Your task to perform on an android device: View the shopping cart on walmart.com. Add corsair k70 to the cart on walmart.com Image 0: 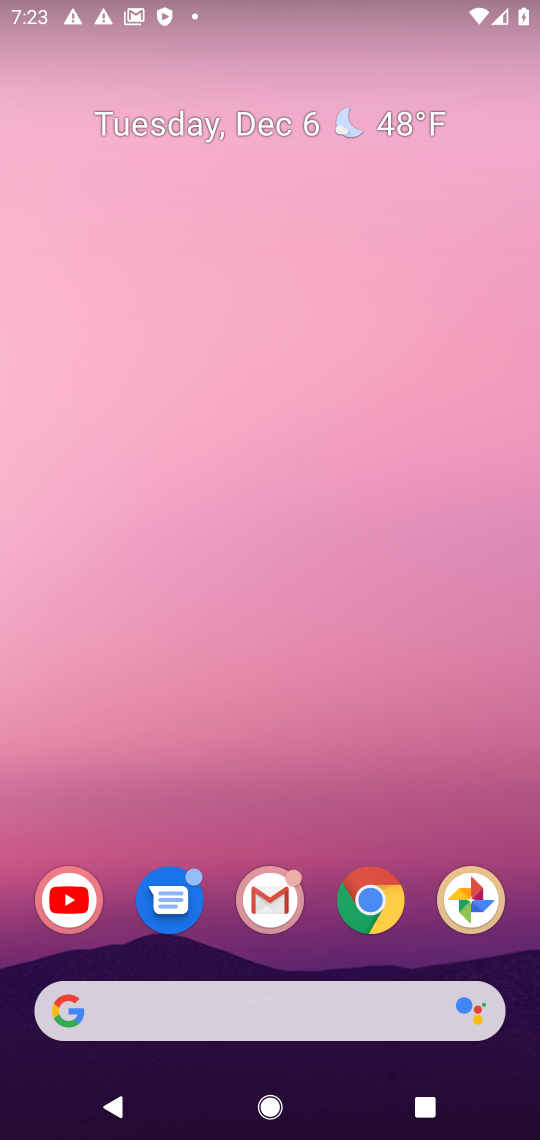
Step 0: drag from (190, 786) to (190, 172)
Your task to perform on an android device: View the shopping cart on walmart.com. Add corsair k70 to the cart on walmart.com Image 1: 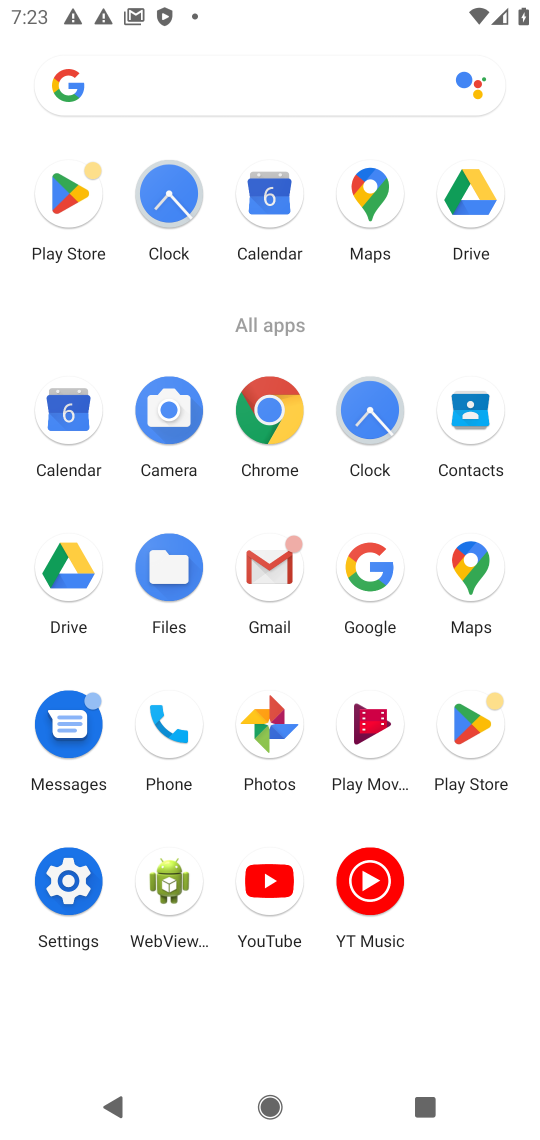
Step 1: click (355, 574)
Your task to perform on an android device: View the shopping cart on walmart.com. Add corsair k70 to the cart on walmart.com Image 2: 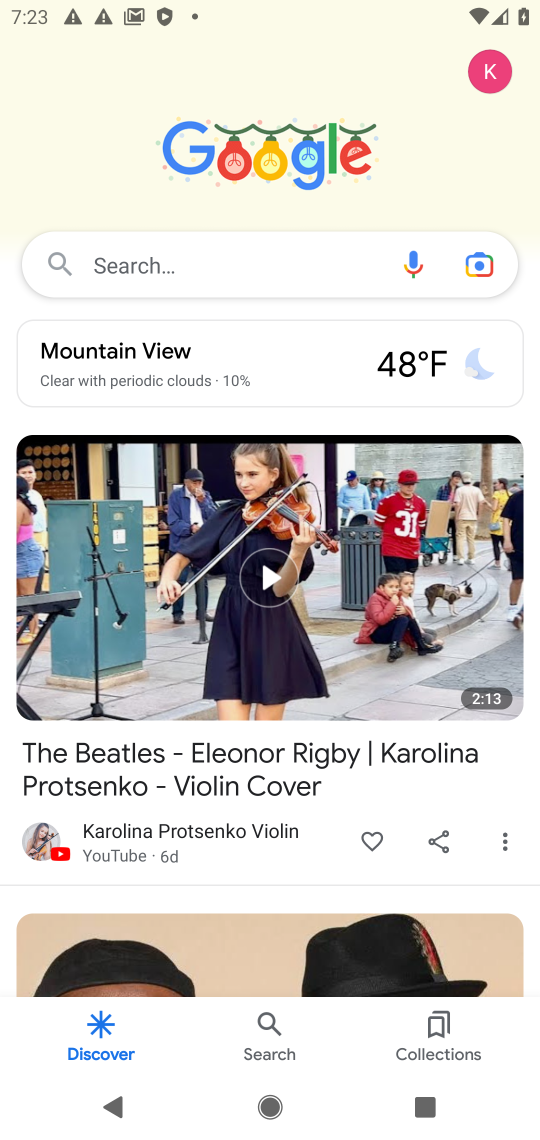
Step 2: click (286, 266)
Your task to perform on an android device: View the shopping cart on walmart.com. Add corsair k70 to the cart on walmart.com Image 3: 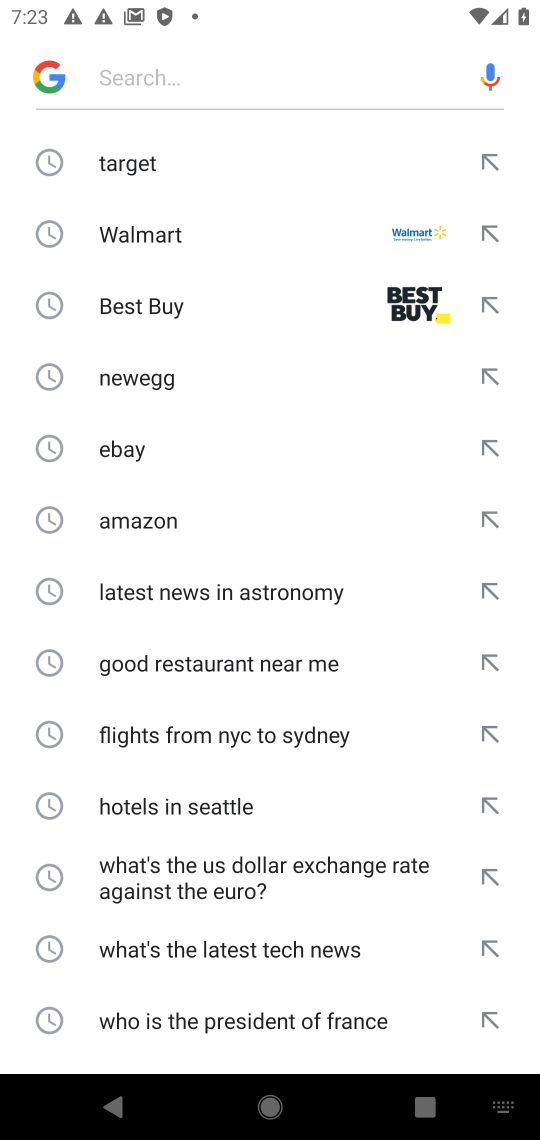
Step 3: click (415, 228)
Your task to perform on an android device: View the shopping cart on walmart.com. Add corsair k70 to the cart on walmart.com Image 4: 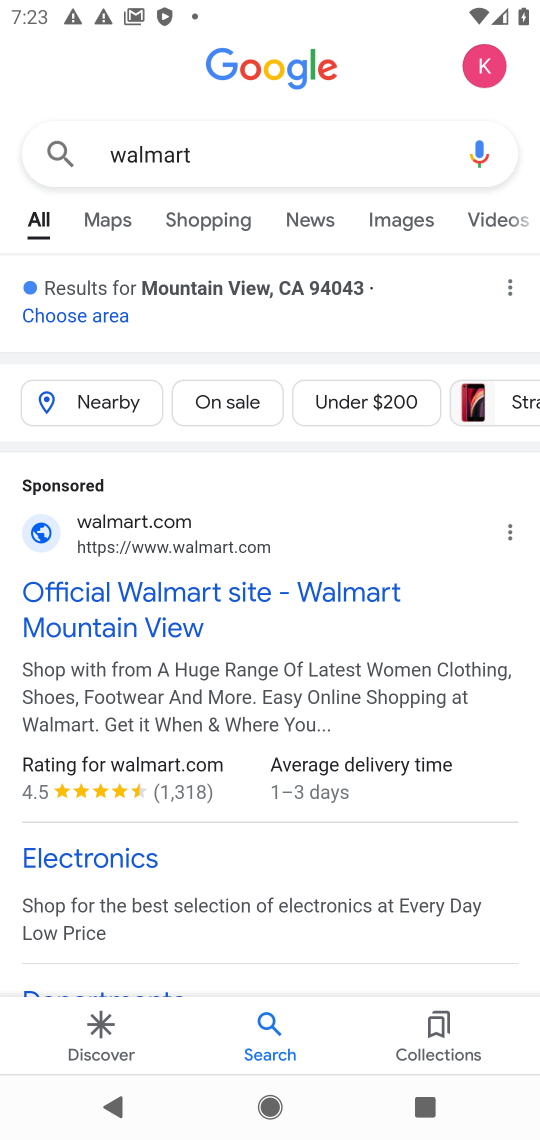
Step 4: click (177, 585)
Your task to perform on an android device: View the shopping cart on walmart.com. Add corsair k70 to the cart on walmart.com Image 5: 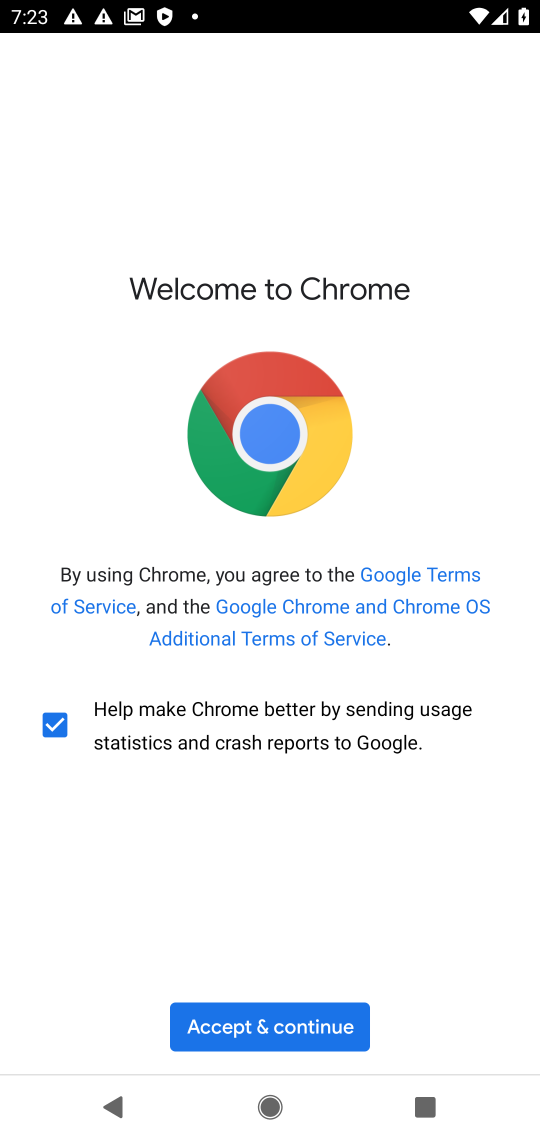
Step 5: click (197, 1013)
Your task to perform on an android device: View the shopping cart on walmart.com. Add corsair k70 to the cart on walmart.com Image 6: 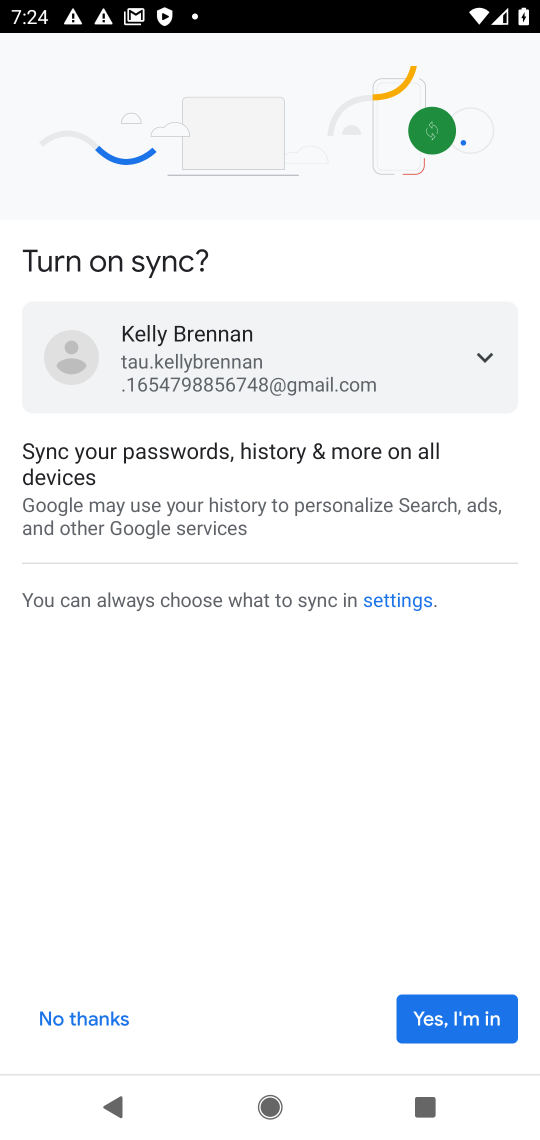
Step 6: click (435, 1007)
Your task to perform on an android device: View the shopping cart on walmart.com. Add corsair k70 to the cart on walmart.com Image 7: 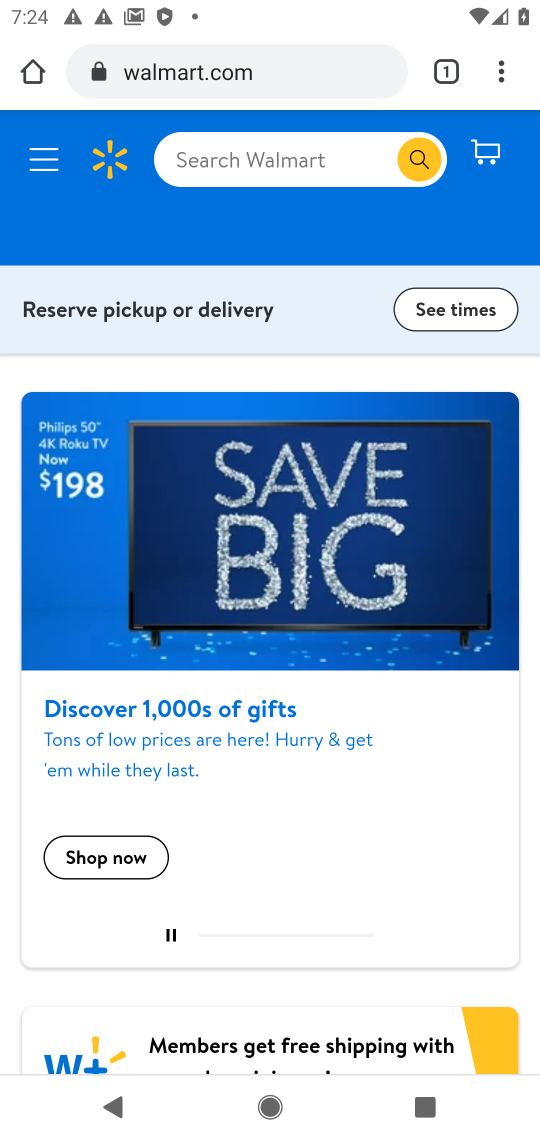
Step 7: click (200, 145)
Your task to perform on an android device: View the shopping cart on walmart.com. Add corsair k70 to the cart on walmart.com Image 8: 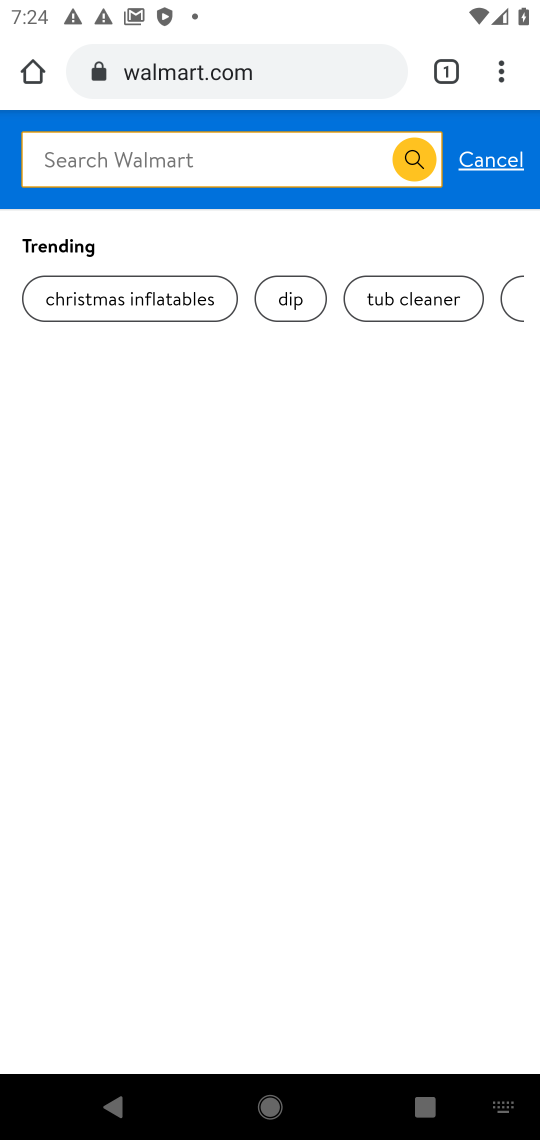
Step 8: type "corsair k70"
Your task to perform on an android device: View the shopping cart on walmart.com. Add corsair k70 to the cart on walmart.com Image 9: 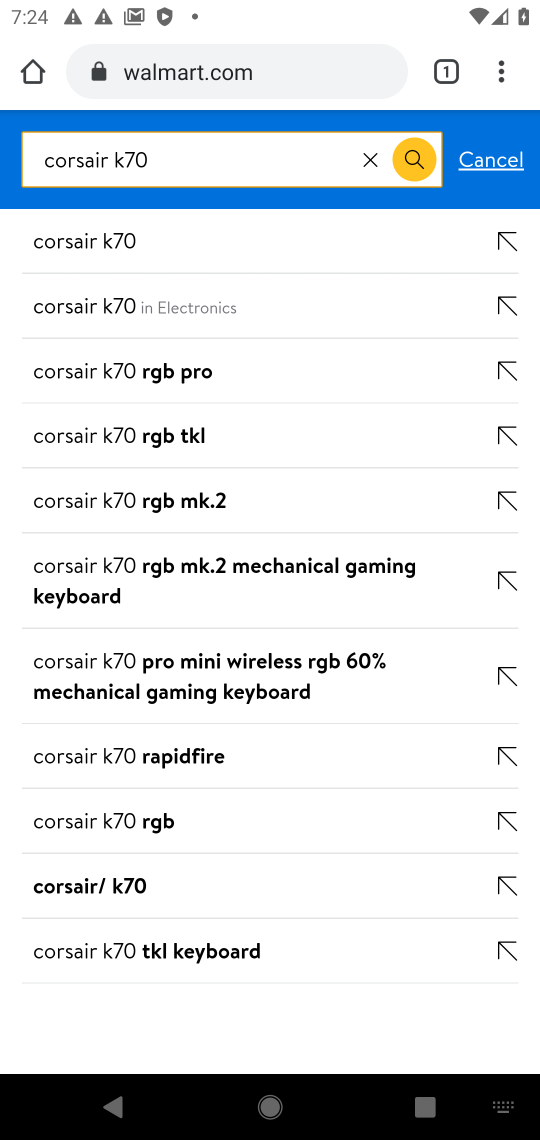
Step 9: click (15, 251)
Your task to perform on an android device: View the shopping cart on walmart.com. Add corsair k70 to the cart on walmart.com Image 10: 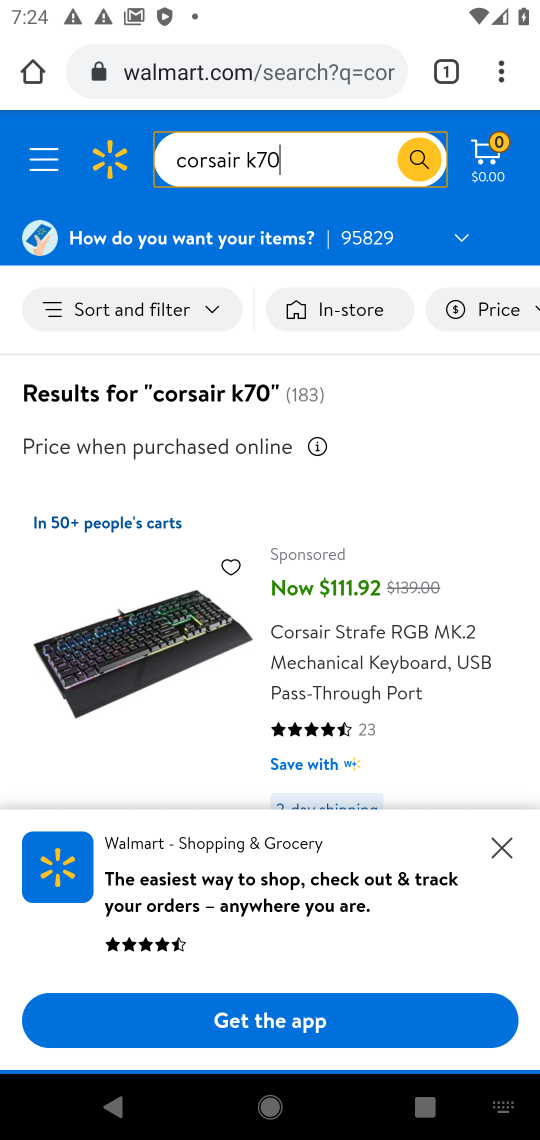
Step 10: drag from (331, 746) to (334, 231)
Your task to perform on an android device: View the shopping cart on walmart.com. Add corsair k70 to the cart on walmart.com Image 11: 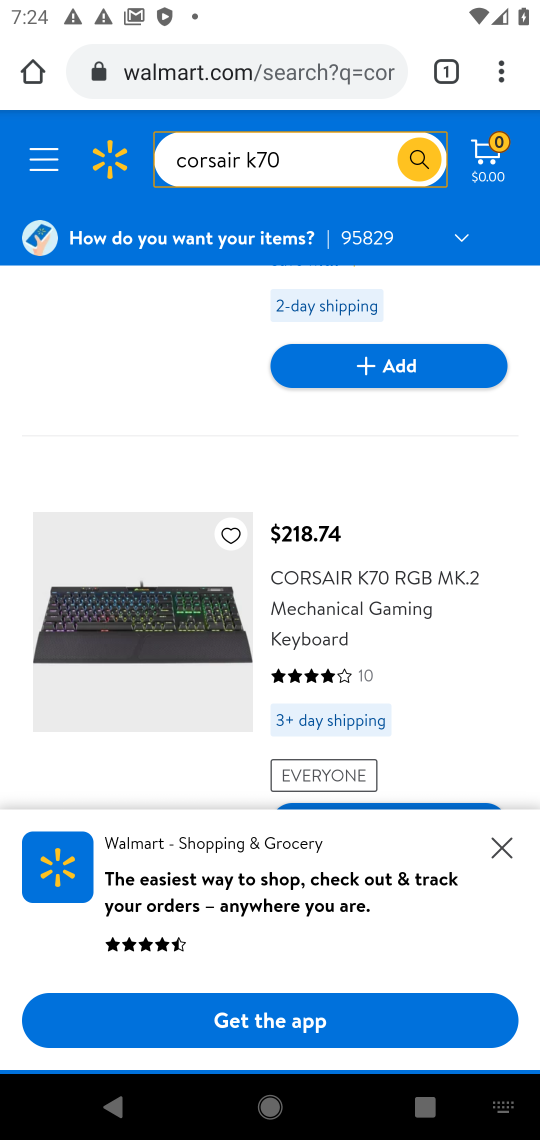
Step 11: click (384, 373)
Your task to perform on an android device: View the shopping cart on walmart.com. Add corsair k70 to the cart on walmart.com Image 12: 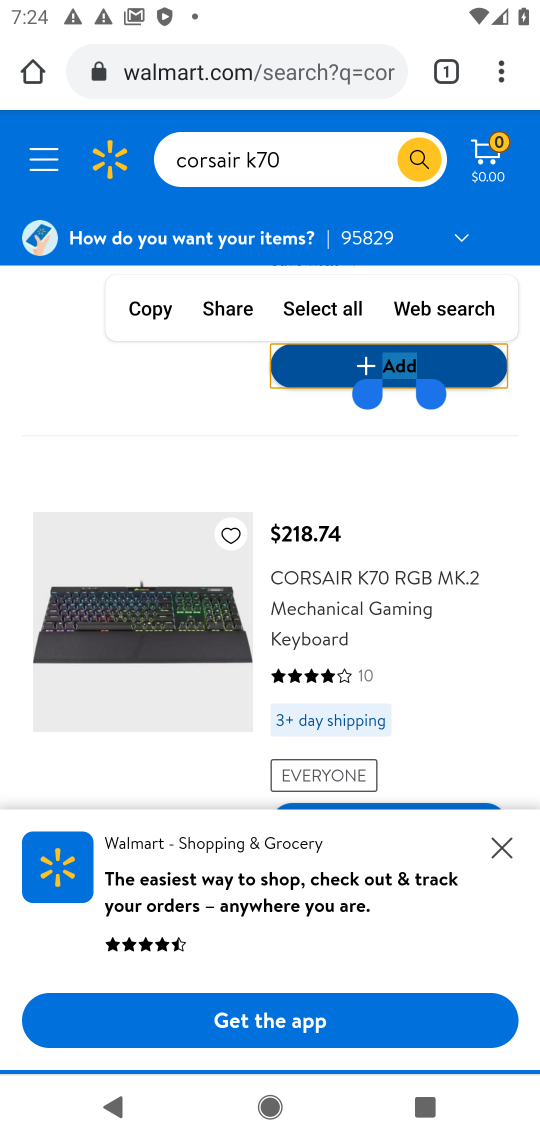
Step 12: click (258, 387)
Your task to perform on an android device: View the shopping cart on walmart.com. Add corsair k70 to the cart on walmart.com Image 13: 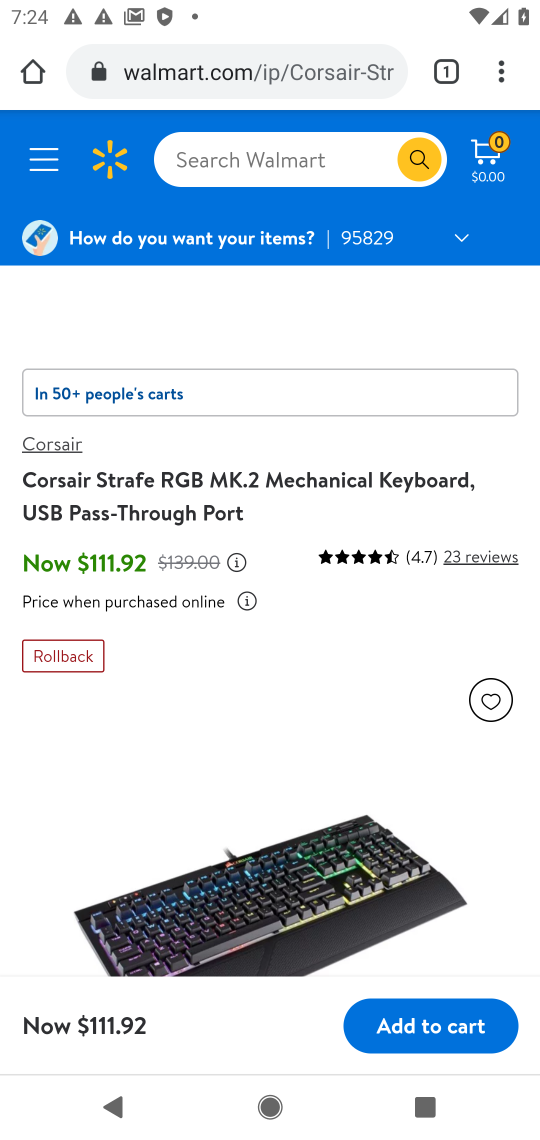
Step 13: click (420, 1020)
Your task to perform on an android device: View the shopping cart on walmart.com. Add corsair k70 to the cart on walmart.com Image 14: 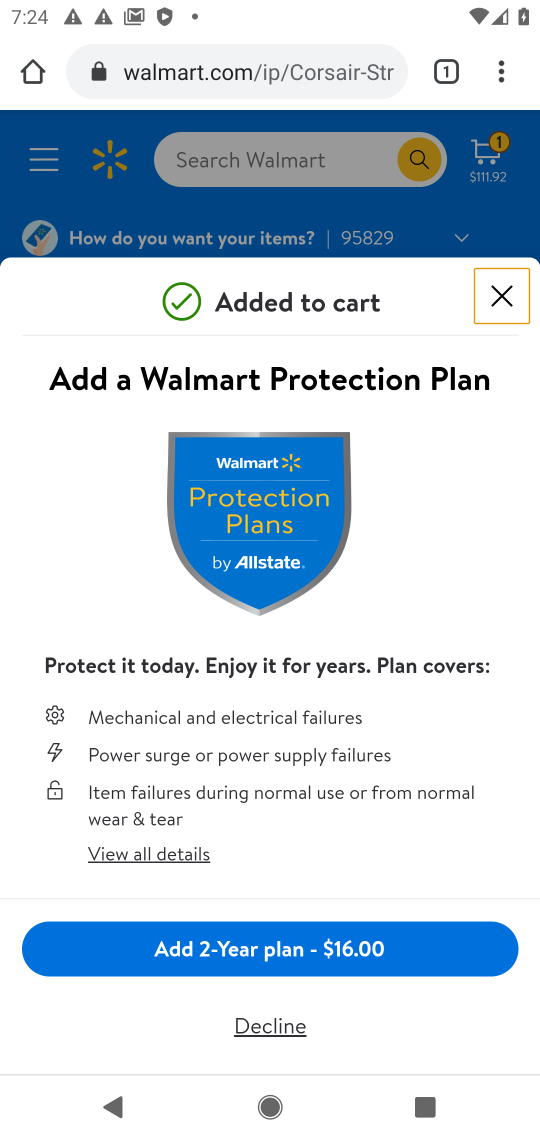
Step 14: task complete